Your task to perform on an android device: turn pop-ups off in chrome Image 0: 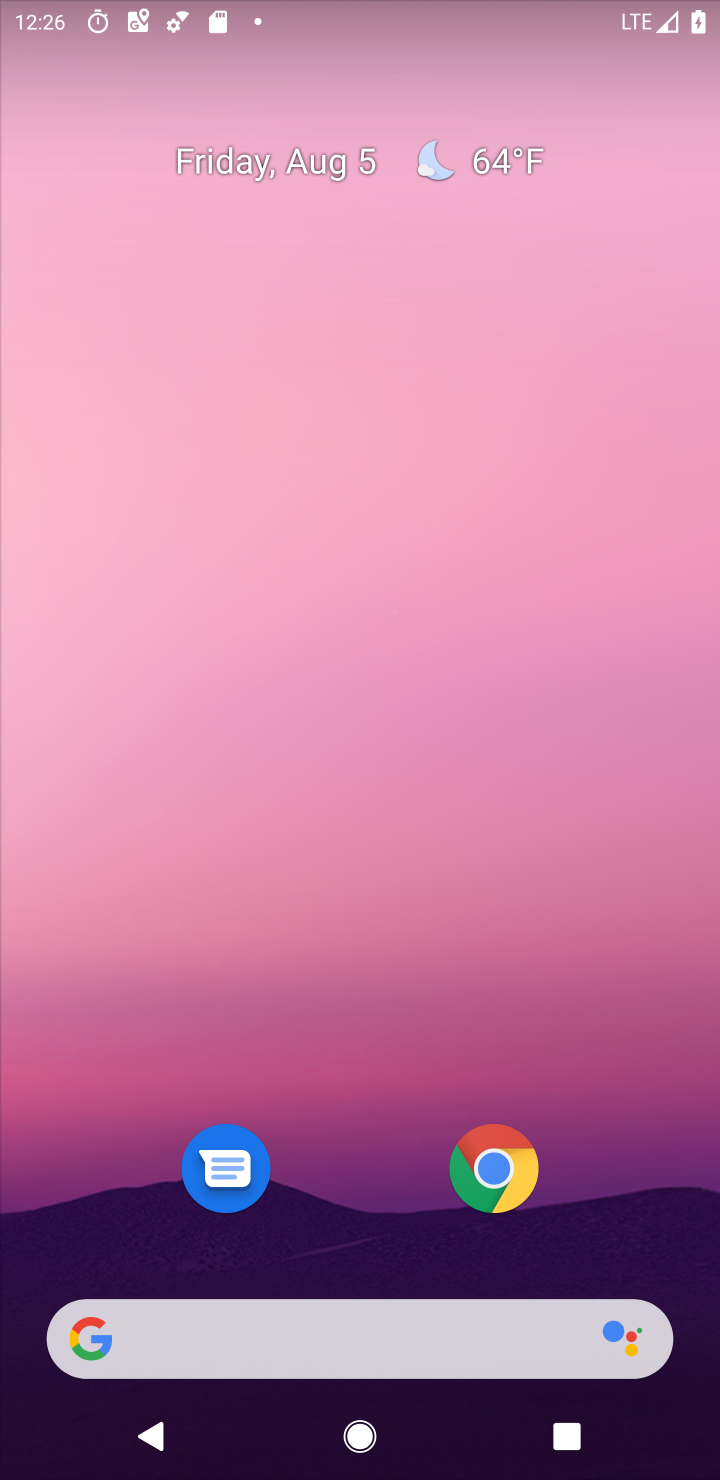
Step 0: click (471, 1183)
Your task to perform on an android device: turn pop-ups off in chrome Image 1: 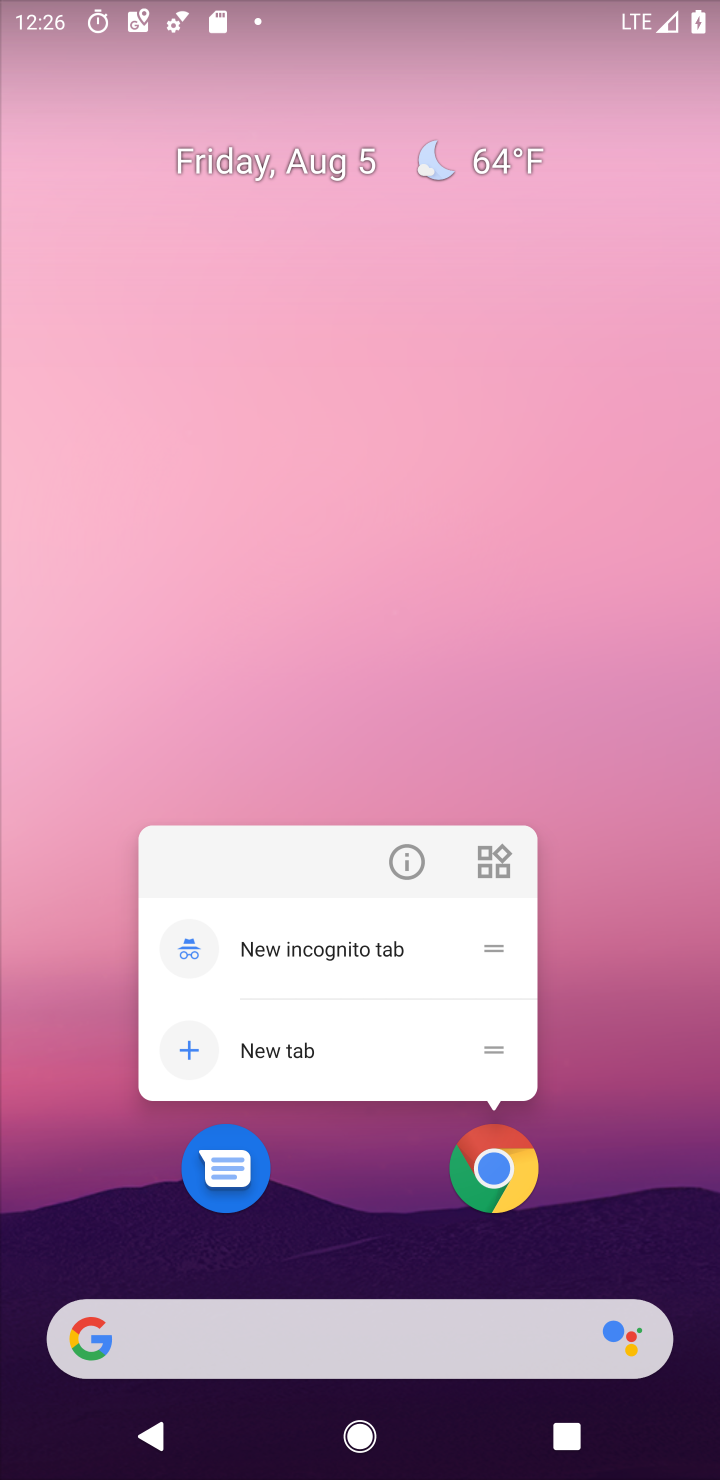
Step 1: click (500, 1149)
Your task to perform on an android device: turn pop-ups off in chrome Image 2: 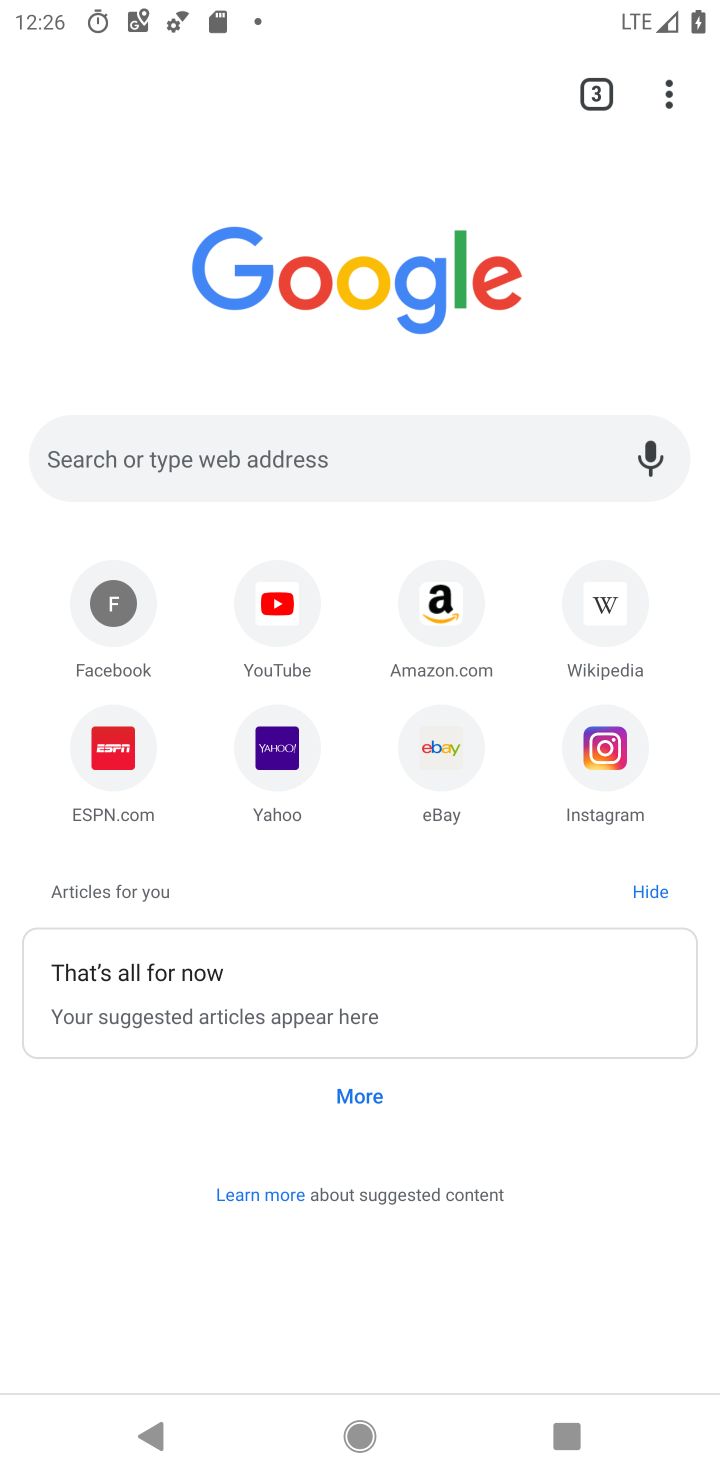
Step 2: click (716, 14)
Your task to perform on an android device: turn pop-ups off in chrome Image 3: 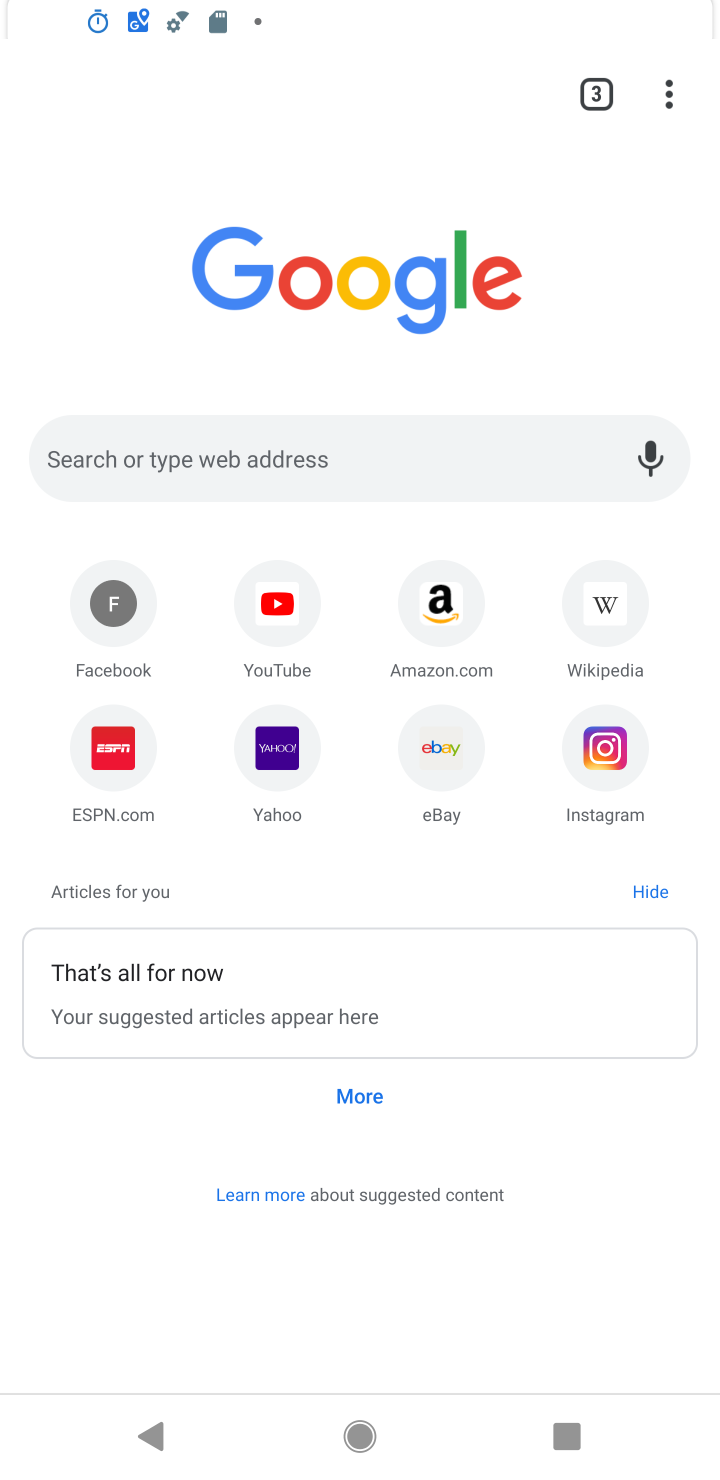
Step 3: click (679, 89)
Your task to perform on an android device: turn pop-ups off in chrome Image 4: 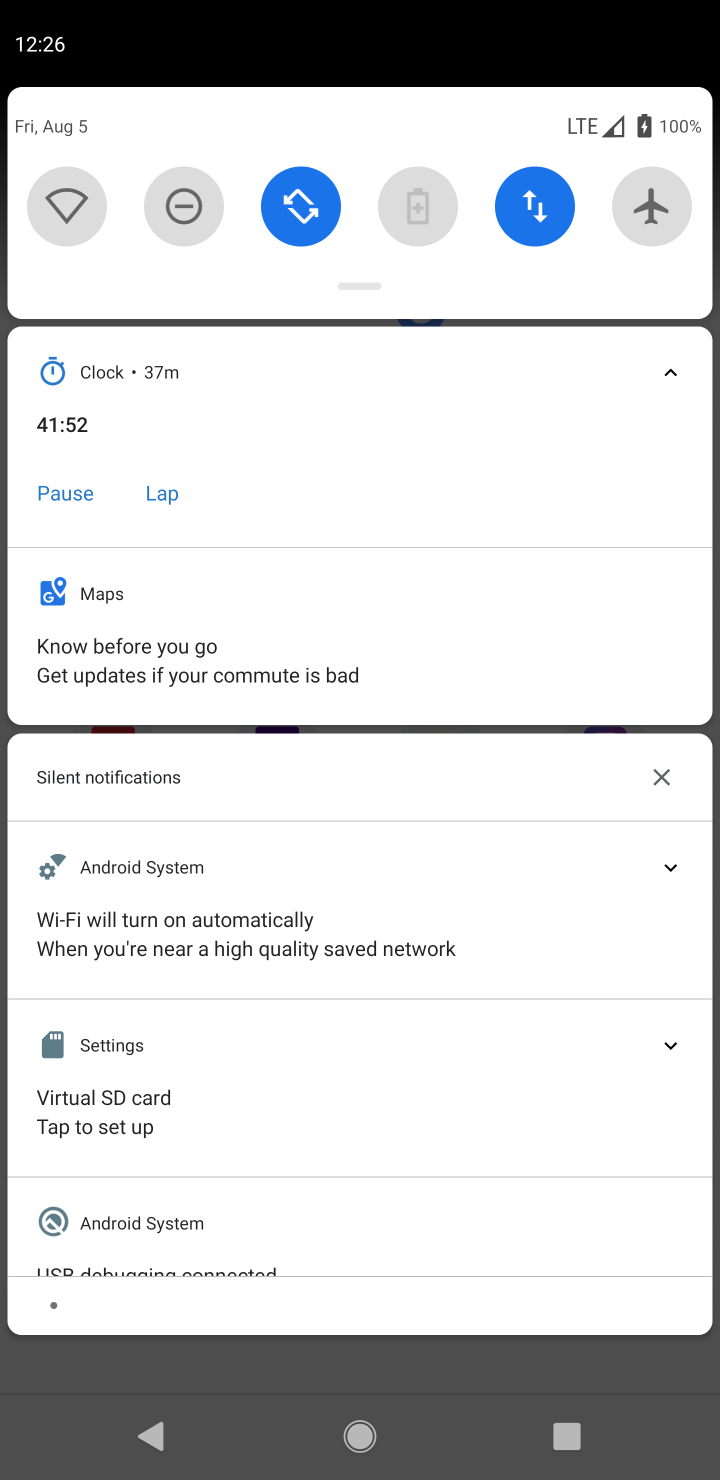
Step 4: press back button
Your task to perform on an android device: turn pop-ups off in chrome Image 5: 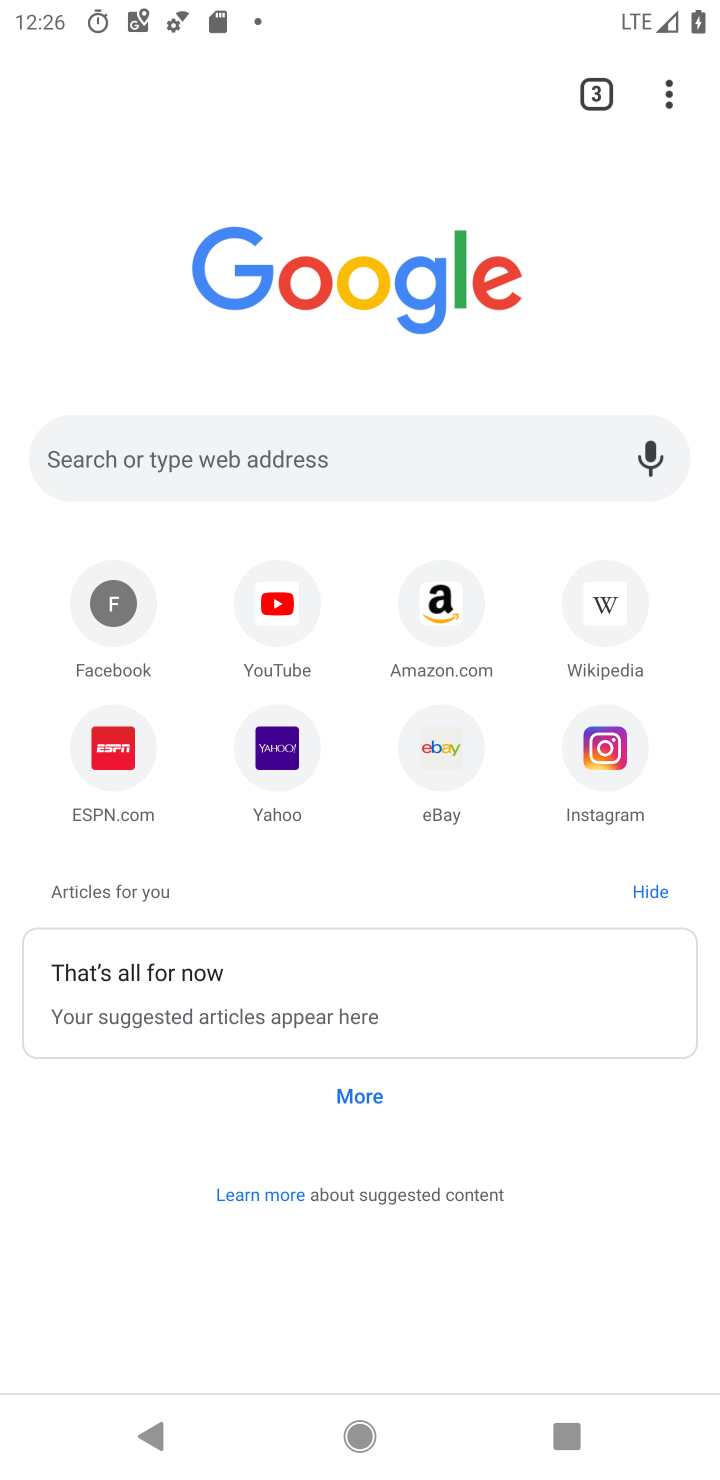
Step 5: click (671, 91)
Your task to perform on an android device: turn pop-ups off in chrome Image 6: 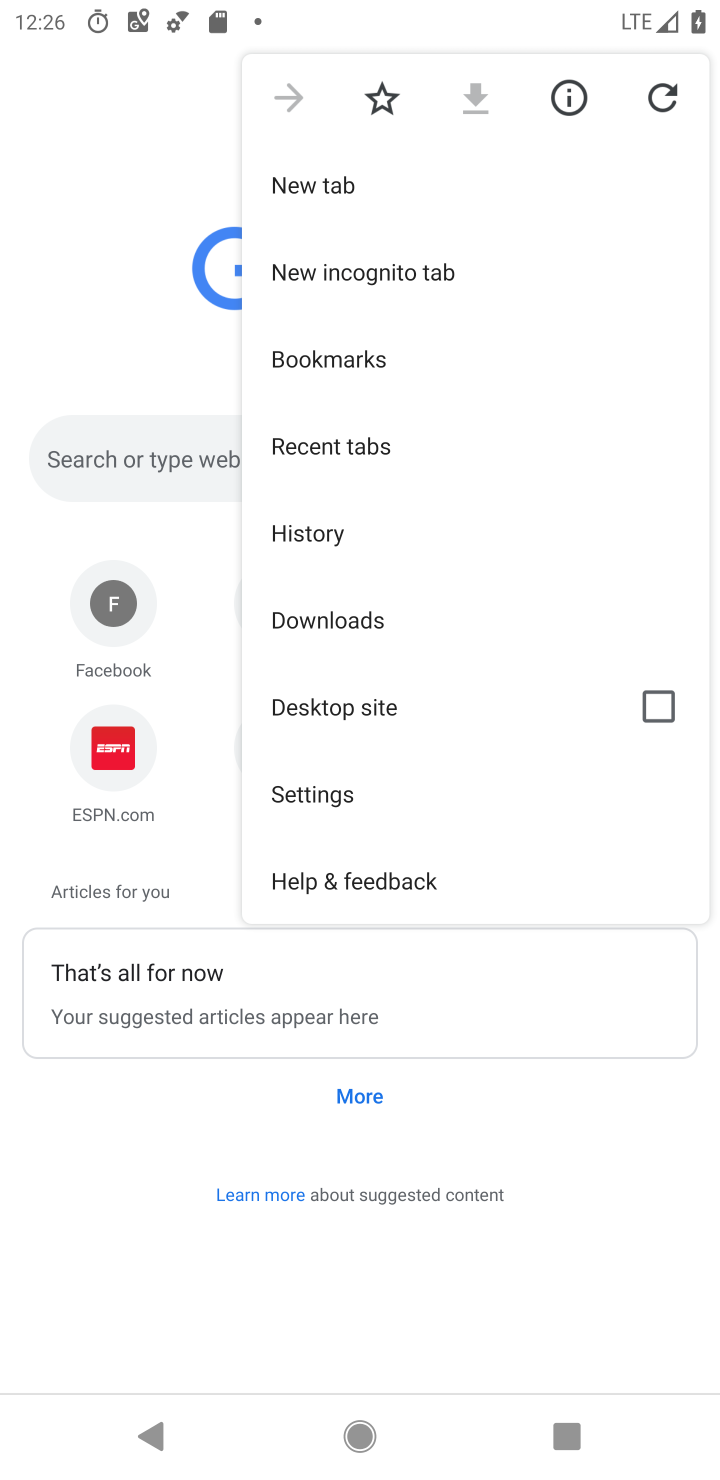
Step 6: click (335, 794)
Your task to perform on an android device: turn pop-ups off in chrome Image 7: 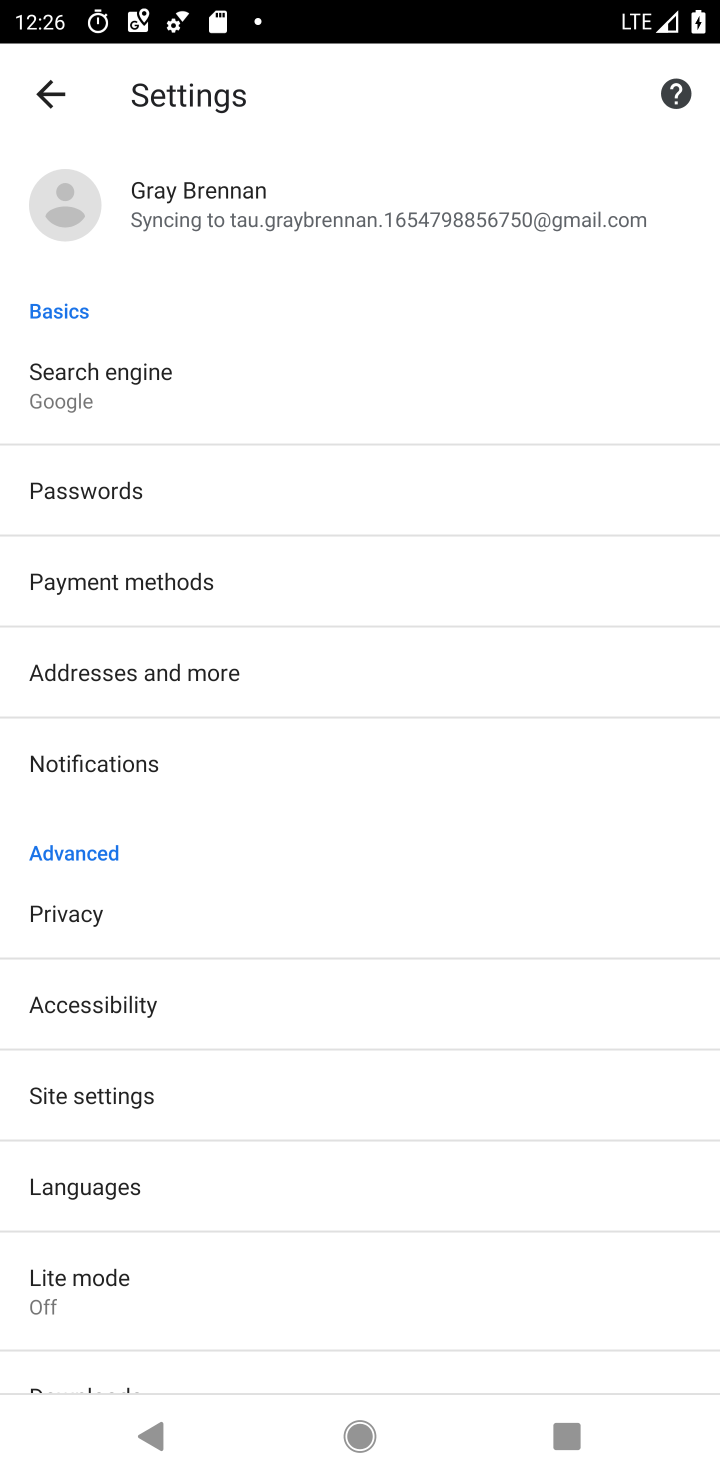
Step 7: click (116, 1097)
Your task to perform on an android device: turn pop-ups off in chrome Image 8: 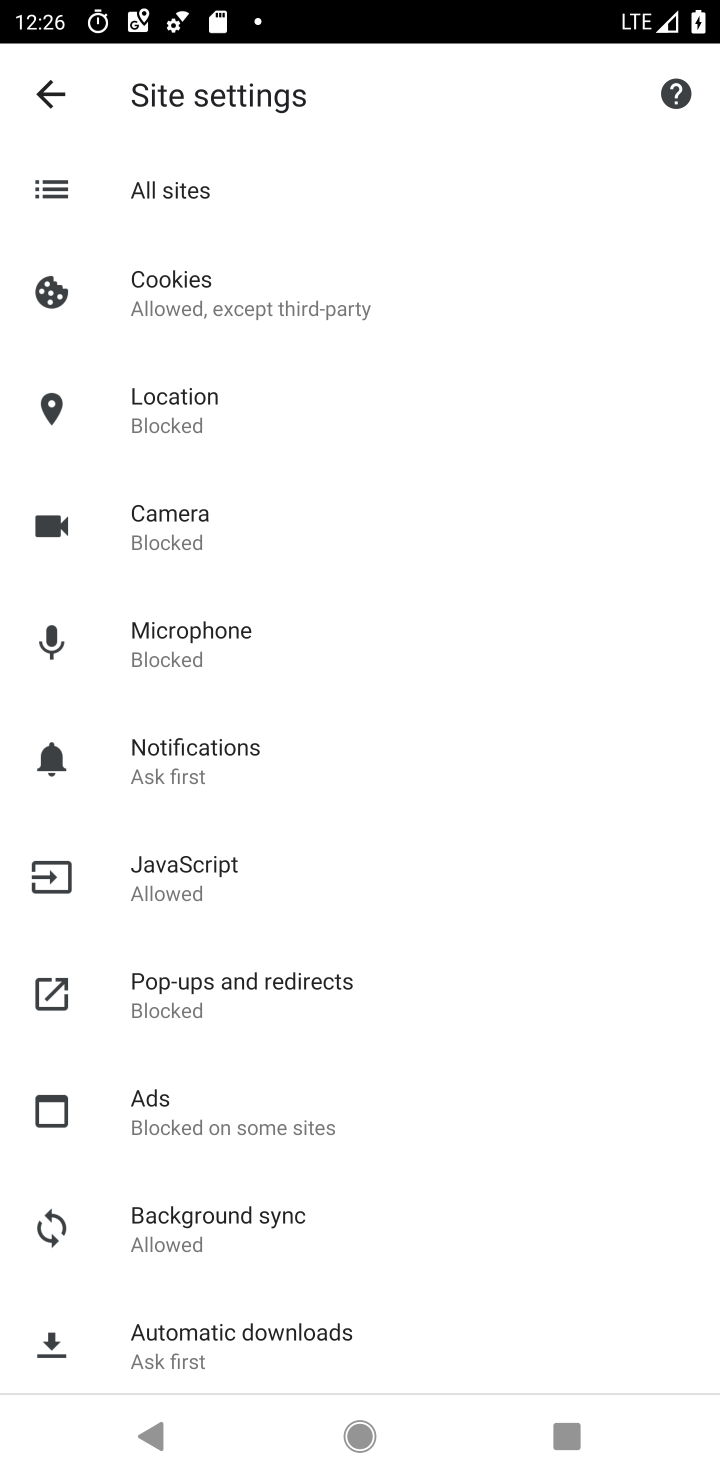
Step 8: click (240, 997)
Your task to perform on an android device: turn pop-ups off in chrome Image 9: 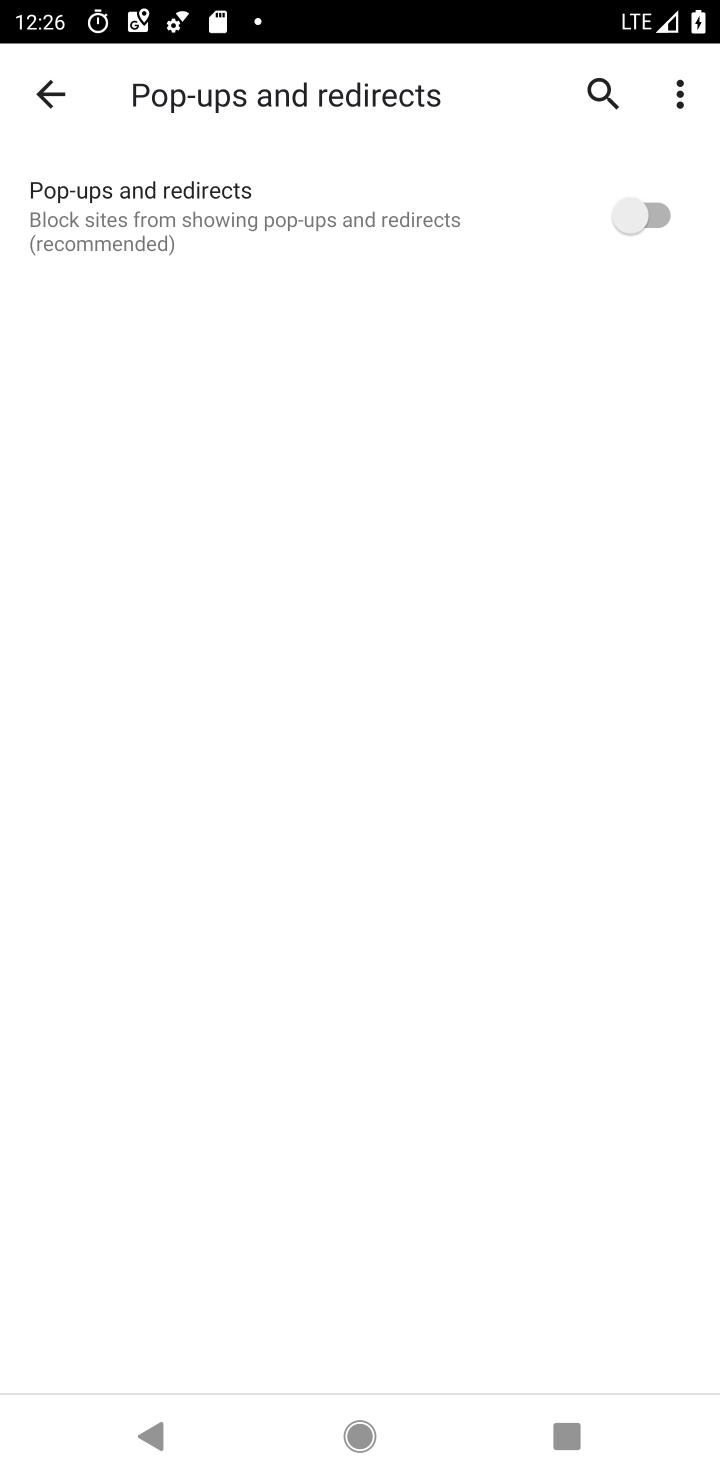
Step 9: task complete